Your task to perform on an android device: Open display settings Image 0: 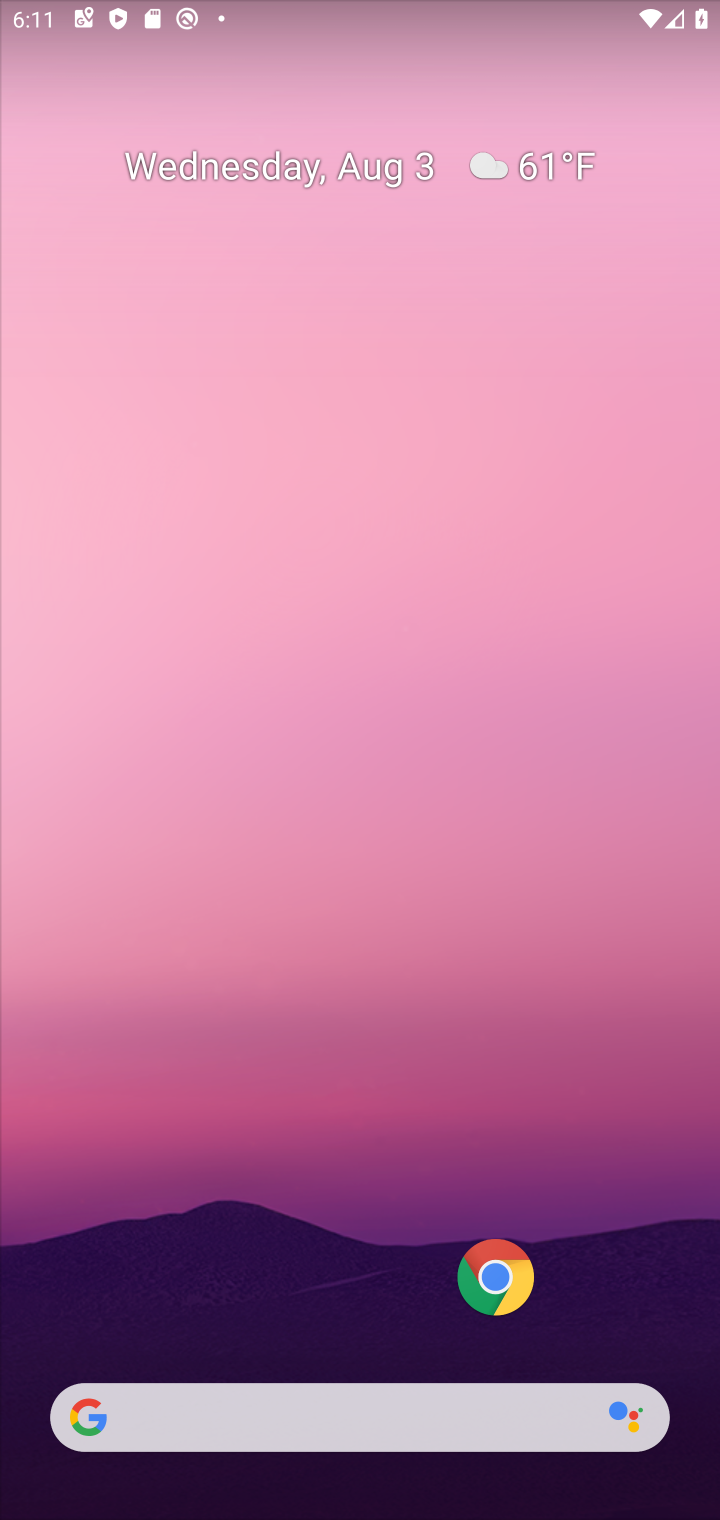
Step 0: drag from (300, 1085) to (492, 192)
Your task to perform on an android device: Open display settings Image 1: 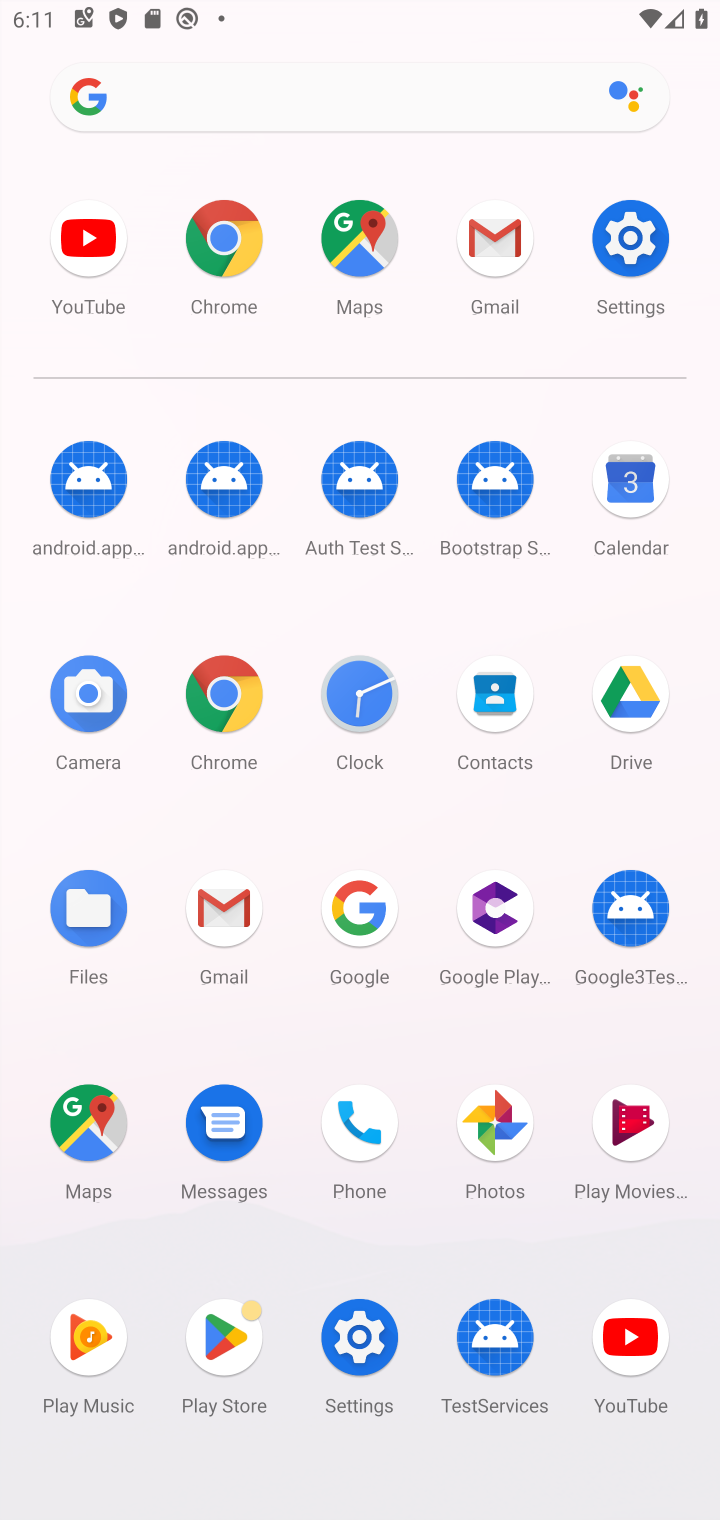
Step 1: click (647, 222)
Your task to perform on an android device: Open display settings Image 2: 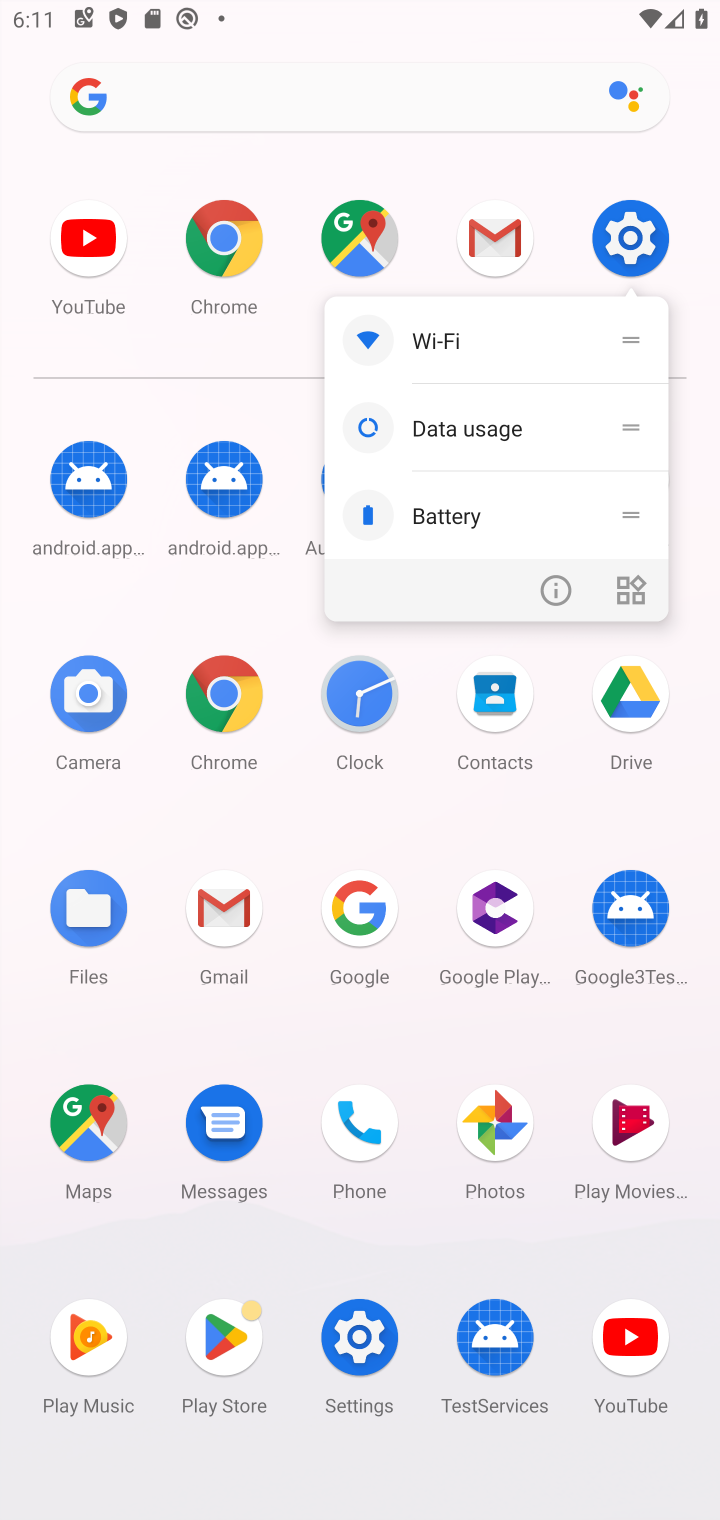
Step 2: click (647, 222)
Your task to perform on an android device: Open display settings Image 3: 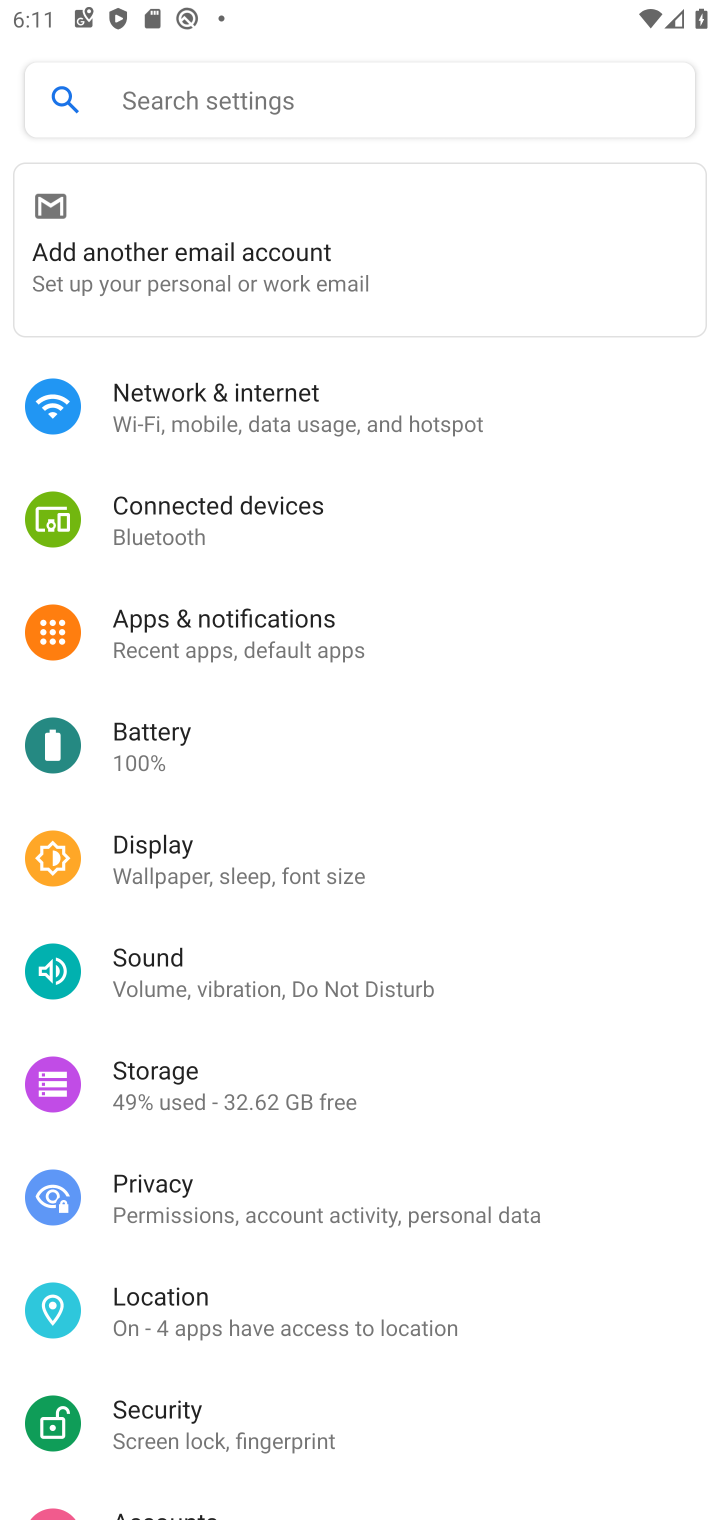
Step 3: click (146, 842)
Your task to perform on an android device: Open display settings Image 4: 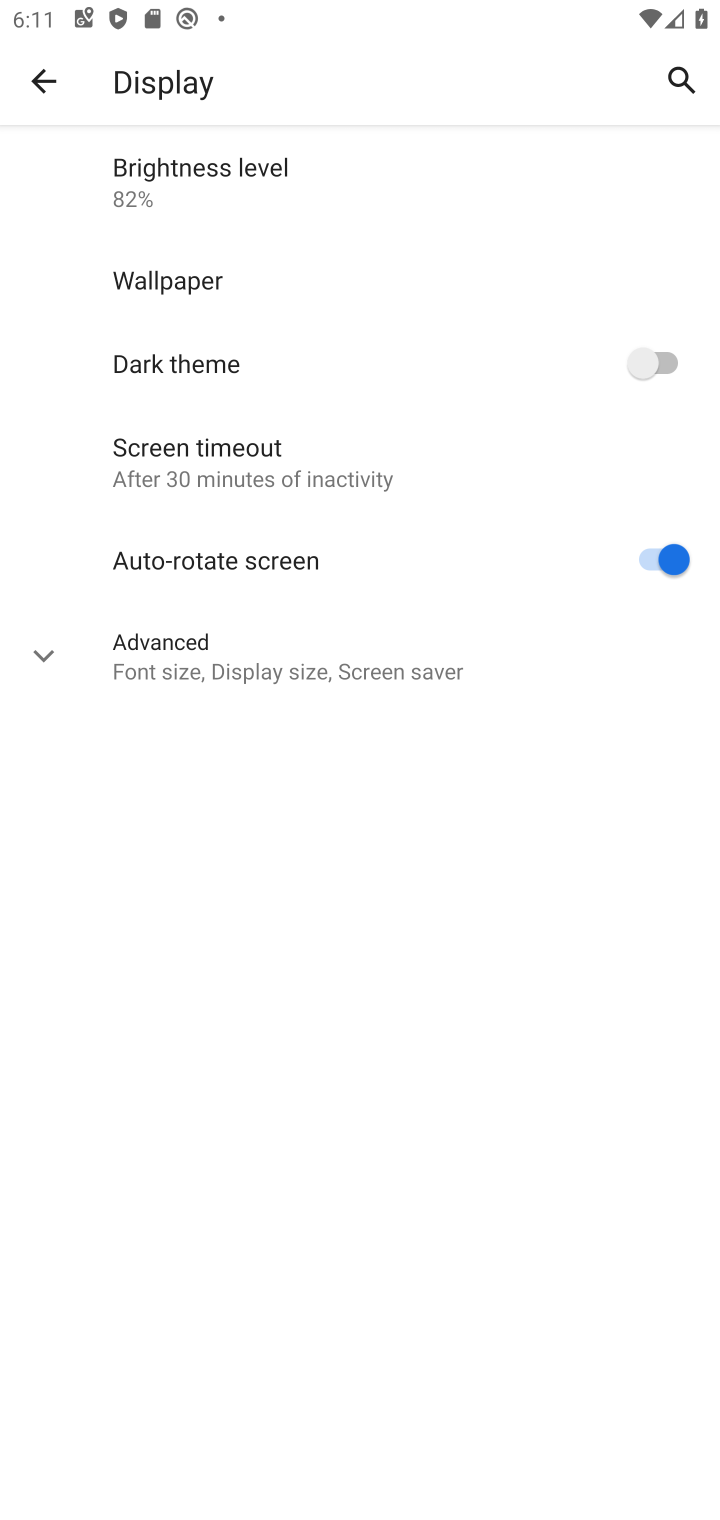
Step 4: task complete